Your task to perform on an android device: Open calendar and show me the third week of next month Image 0: 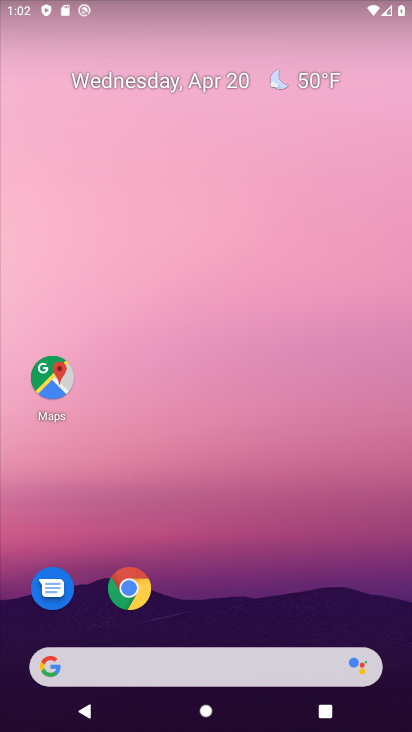
Step 0: drag from (253, 563) to (264, 222)
Your task to perform on an android device: Open calendar and show me the third week of next month Image 1: 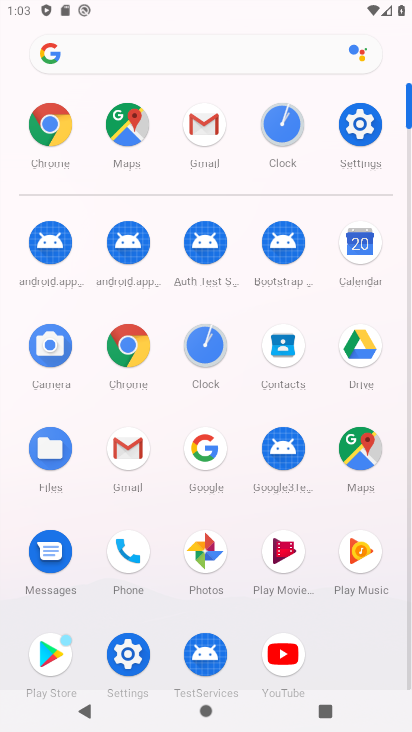
Step 1: click (366, 247)
Your task to perform on an android device: Open calendar and show me the third week of next month Image 2: 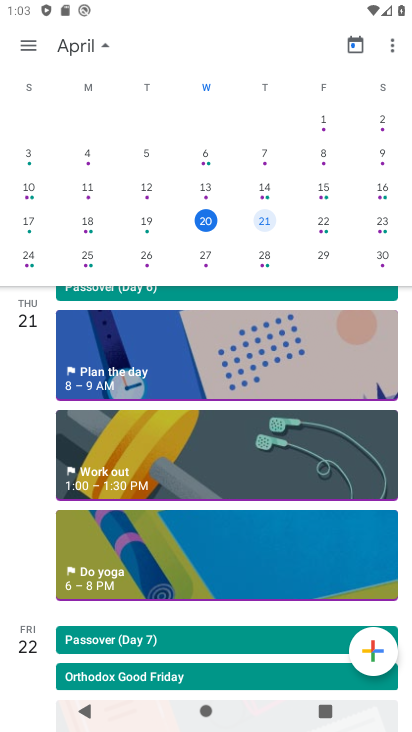
Step 2: click (88, 49)
Your task to perform on an android device: Open calendar and show me the third week of next month Image 3: 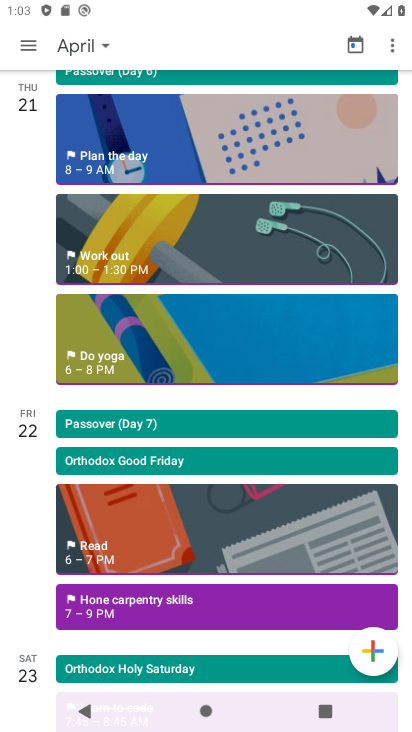
Step 3: click (87, 47)
Your task to perform on an android device: Open calendar and show me the third week of next month Image 4: 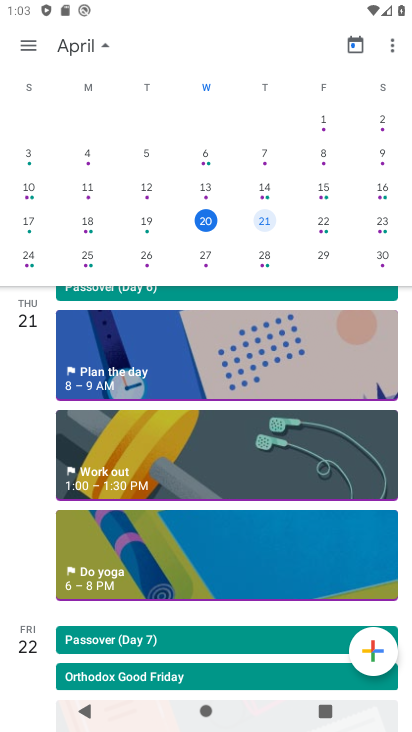
Step 4: drag from (353, 194) to (0, 169)
Your task to perform on an android device: Open calendar and show me the third week of next month Image 5: 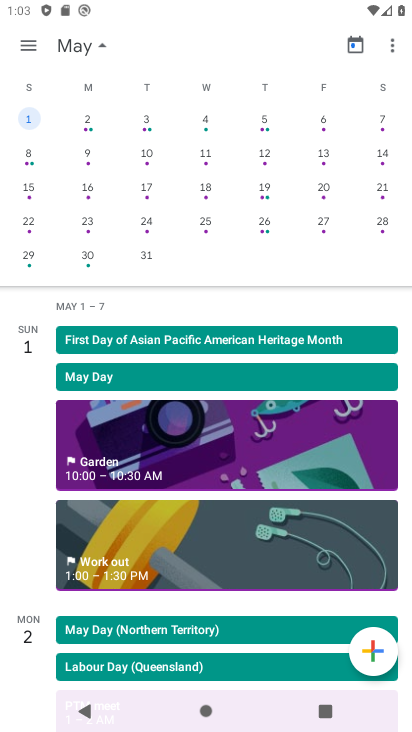
Step 5: click (33, 185)
Your task to perform on an android device: Open calendar and show me the third week of next month Image 6: 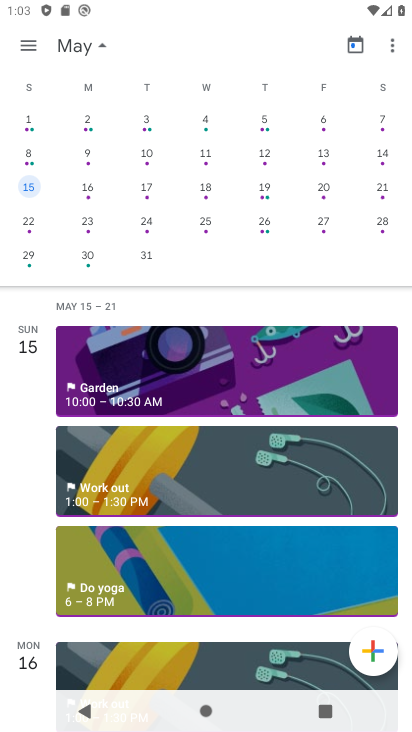
Step 6: task complete